Your task to perform on an android device: install app "Reddit" Image 0: 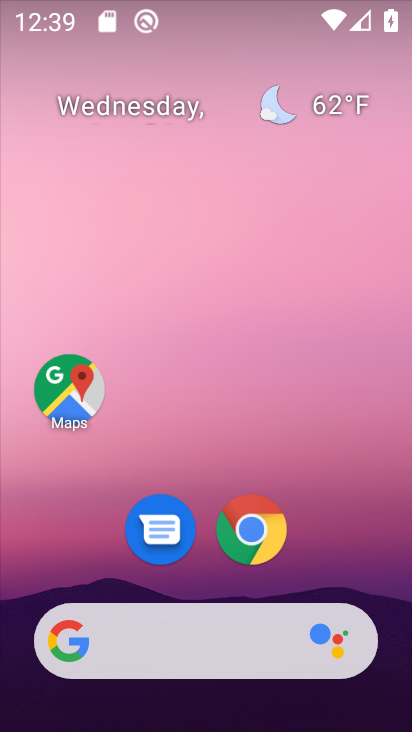
Step 0: drag from (220, 573) to (200, 209)
Your task to perform on an android device: install app "Reddit" Image 1: 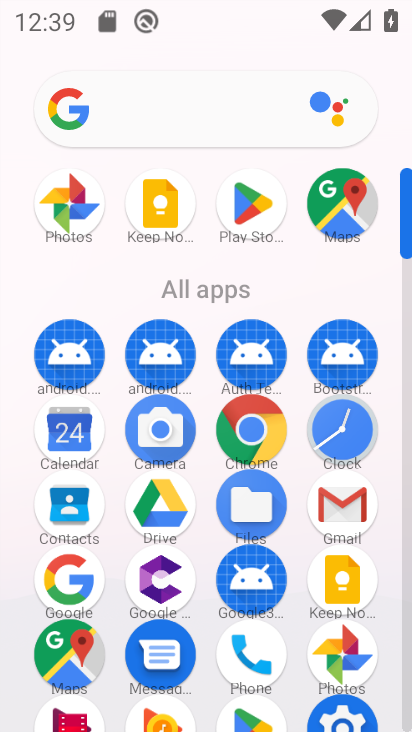
Step 1: click (247, 203)
Your task to perform on an android device: install app "Reddit" Image 2: 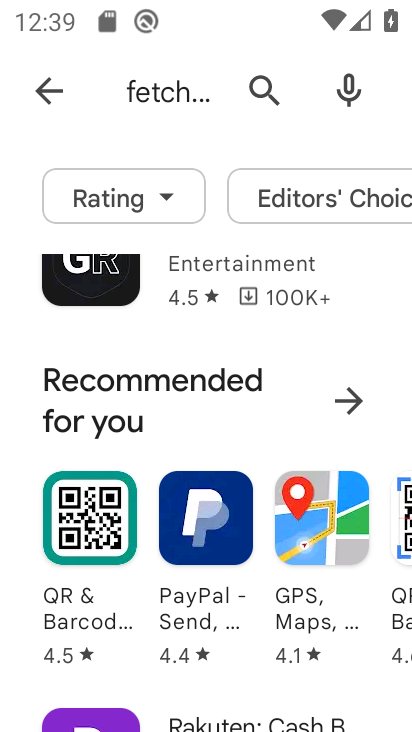
Step 2: click (30, 80)
Your task to perform on an android device: install app "Reddit" Image 3: 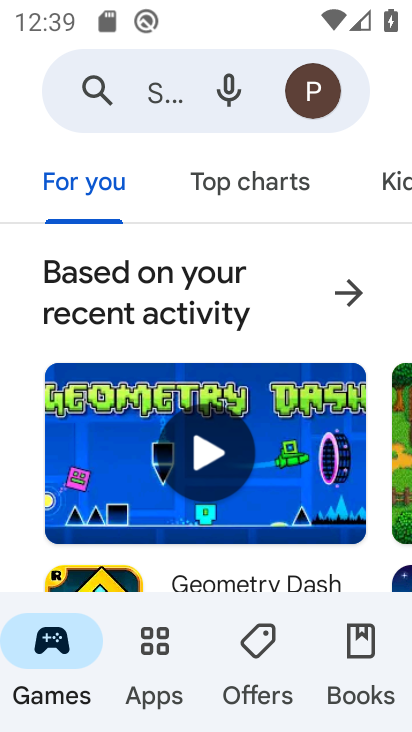
Step 3: click (148, 94)
Your task to perform on an android device: install app "Reddit" Image 4: 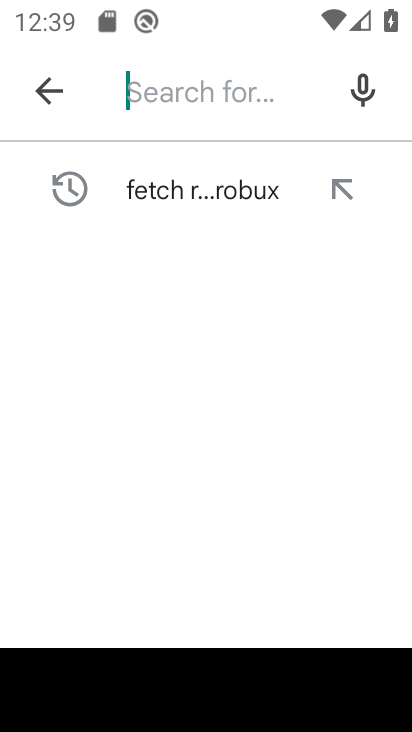
Step 4: type "Reddit "
Your task to perform on an android device: install app "Reddit" Image 5: 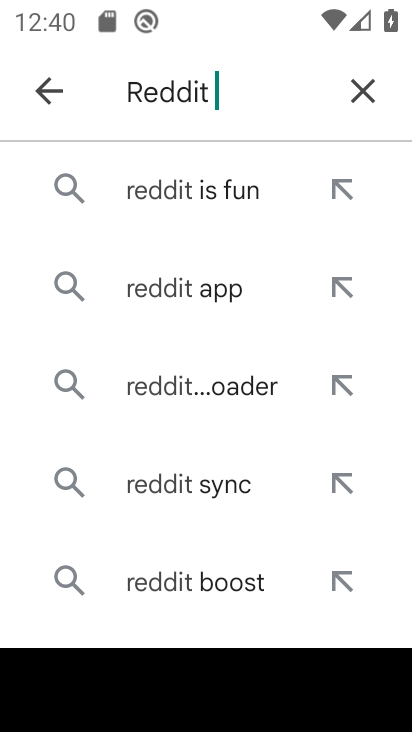
Step 5: click (189, 177)
Your task to perform on an android device: install app "Reddit" Image 6: 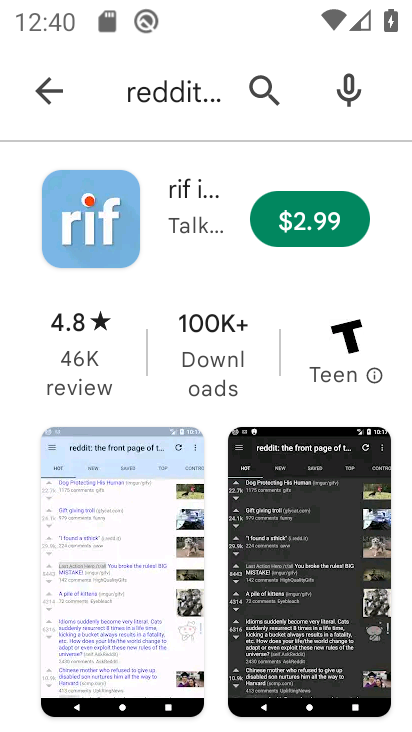
Step 6: task complete